Your task to perform on an android device: turn off wifi Image 0: 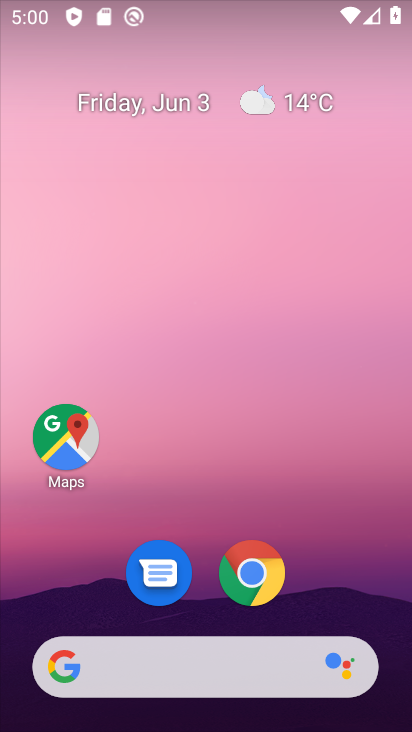
Step 0: drag from (301, 538) to (288, 186)
Your task to perform on an android device: turn off wifi Image 1: 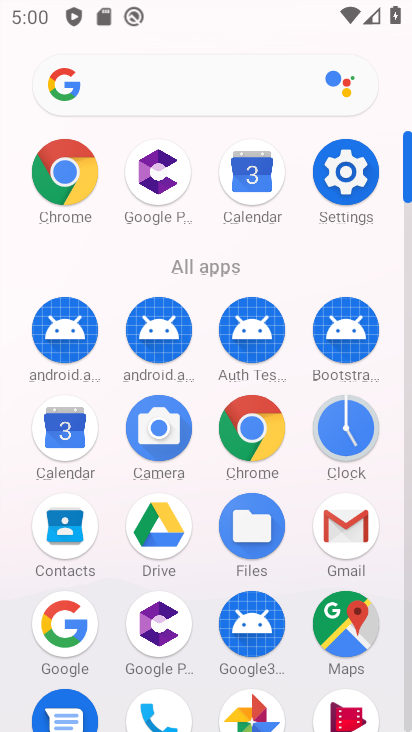
Step 1: click (354, 172)
Your task to perform on an android device: turn off wifi Image 2: 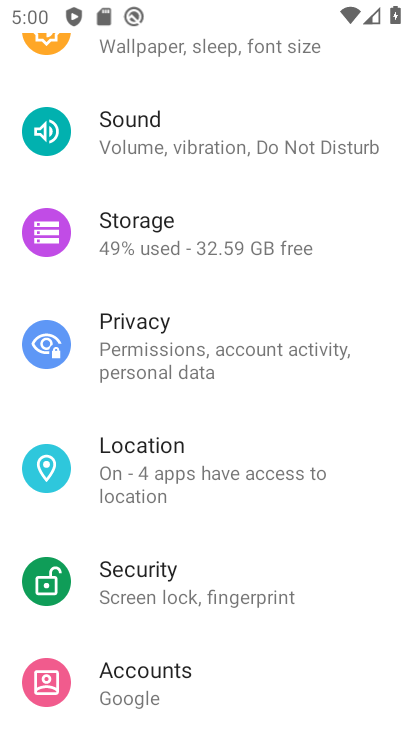
Step 2: drag from (190, 127) to (191, 469)
Your task to perform on an android device: turn off wifi Image 3: 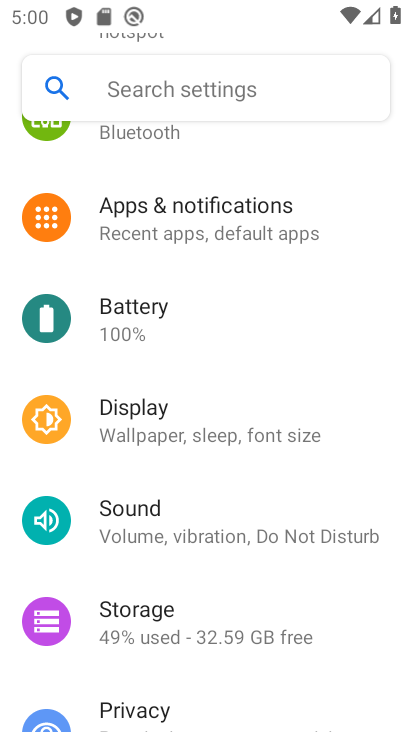
Step 3: drag from (226, 172) to (226, 499)
Your task to perform on an android device: turn off wifi Image 4: 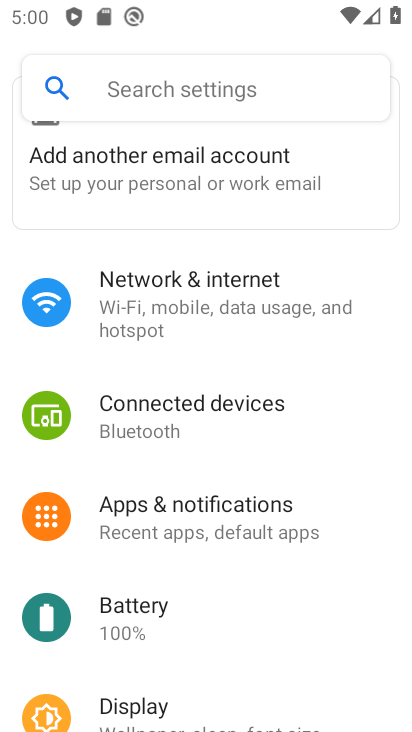
Step 4: click (223, 301)
Your task to perform on an android device: turn off wifi Image 5: 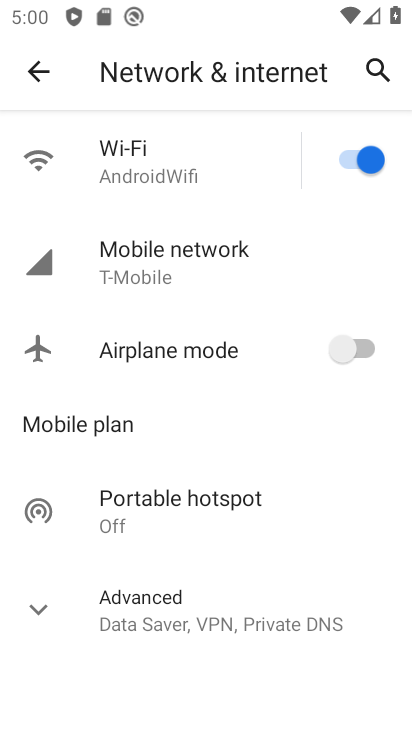
Step 5: click (374, 167)
Your task to perform on an android device: turn off wifi Image 6: 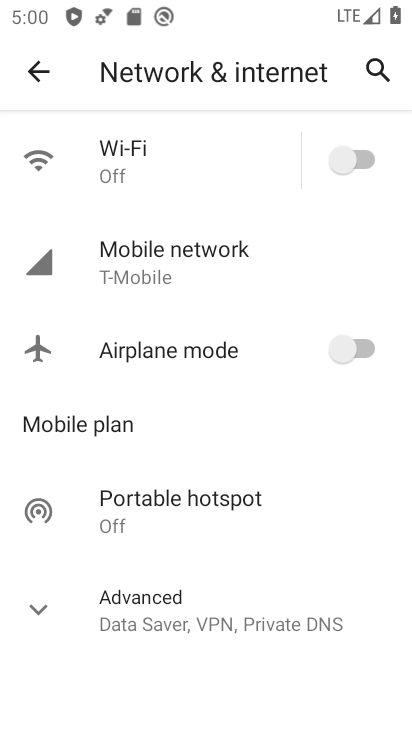
Step 6: task complete